Your task to perform on an android device: turn off sleep mode Image 0: 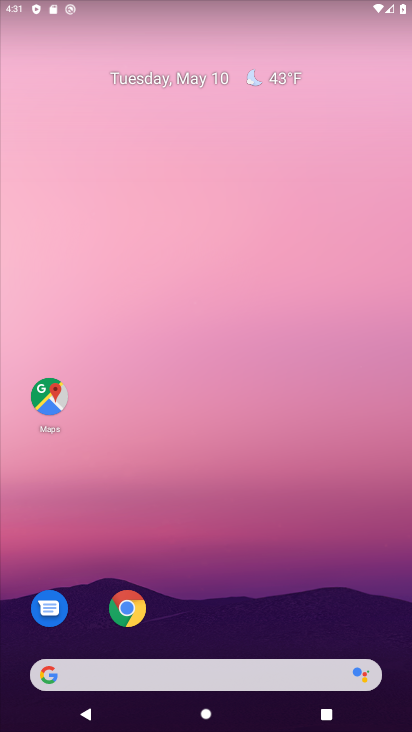
Step 0: drag from (207, 556) to (312, 5)
Your task to perform on an android device: turn off sleep mode Image 1: 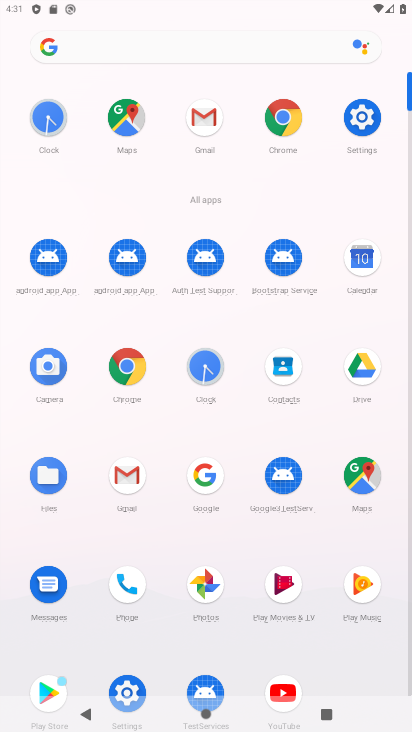
Step 1: click (363, 107)
Your task to perform on an android device: turn off sleep mode Image 2: 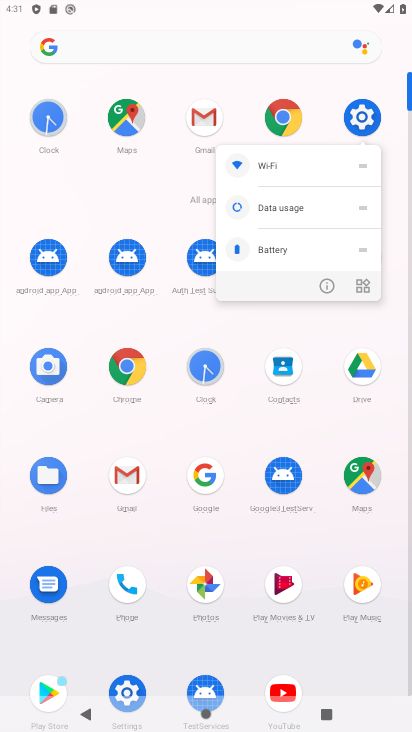
Step 2: click (366, 110)
Your task to perform on an android device: turn off sleep mode Image 3: 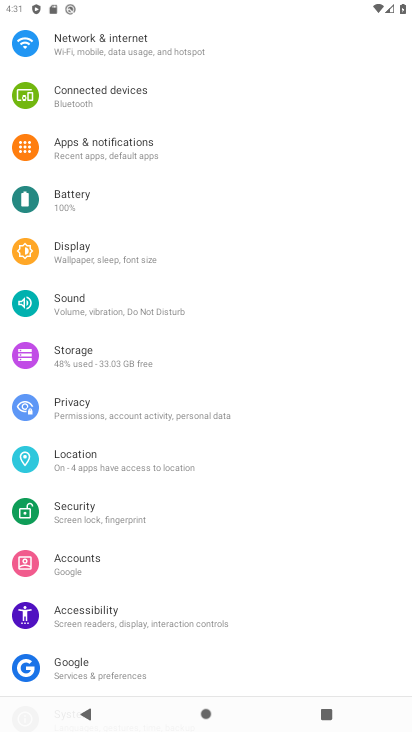
Step 3: drag from (261, 121) to (156, 725)
Your task to perform on an android device: turn off sleep mode Image 4: 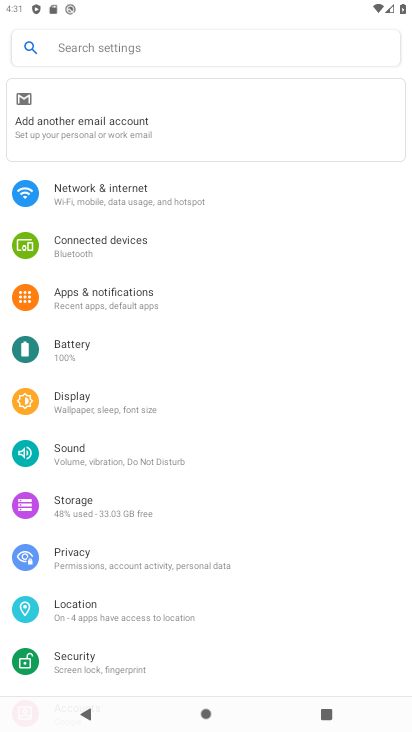
Step 4: click (127, 45)
Your task to perform on an android device: turn off sleep mode Image 5: 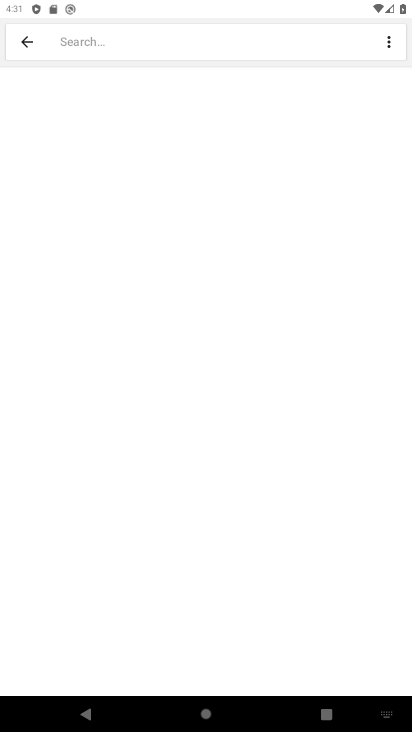
Step 5: type "sleep mode"
Your task to perform on an android device: turn off sleep mode Image 6: 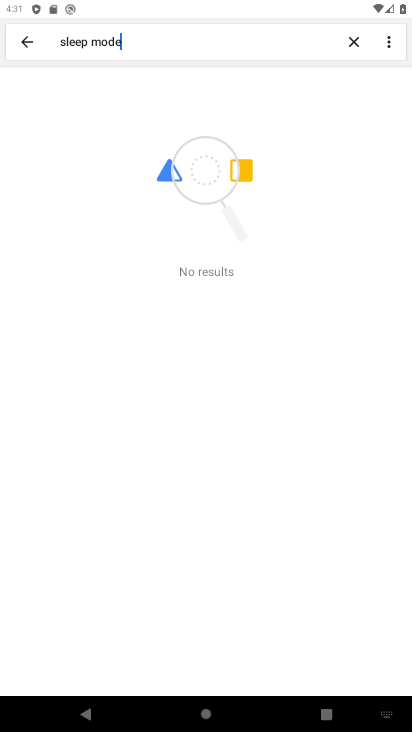
Step 6: task complete